Your task to perform on an android device: Go to privacy settings Image 0: 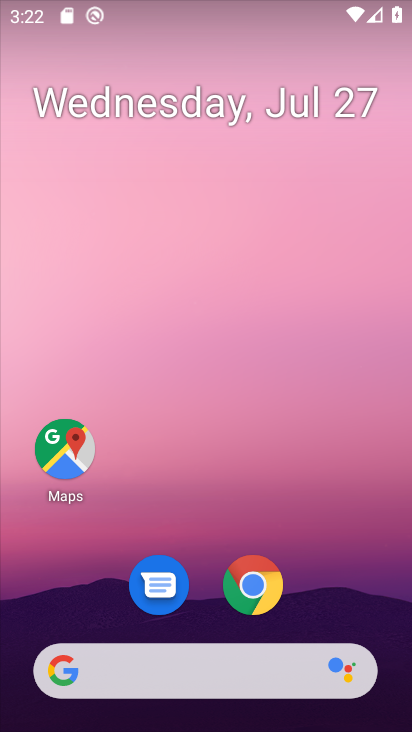
Step 0: drag from (310, 577) to (363, 53)
Your task to perform on an android device: Go to privacy settings Image 1: 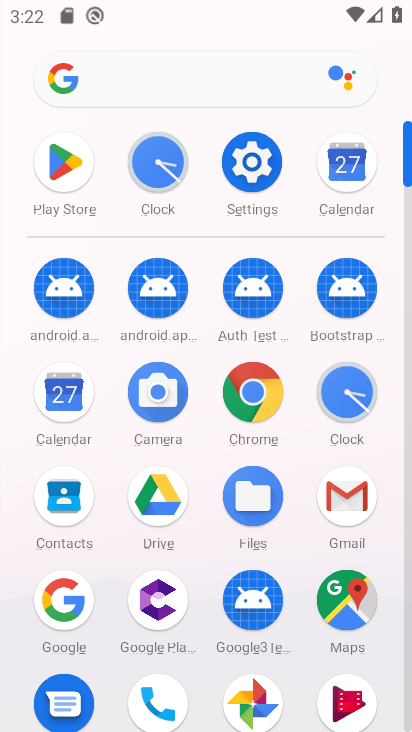
Step 1: click (256, 165)
Your task to perform on an android device: Go to privacy settings Image 2: 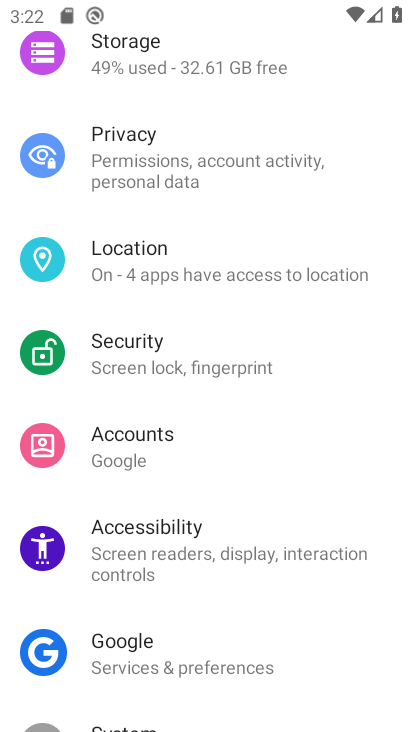
Step 2: click (201, 165)
Your task to perform on an android device: Go to privacy settings Image 3: 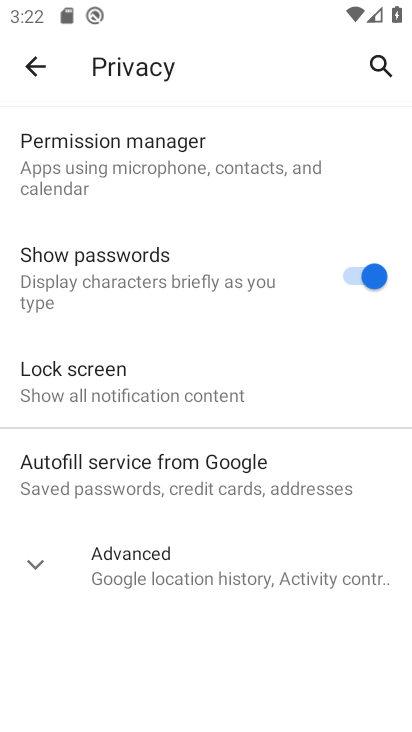
Step 3: task complete